Your task to perform on an android device: When is my next meeting? Image 0: 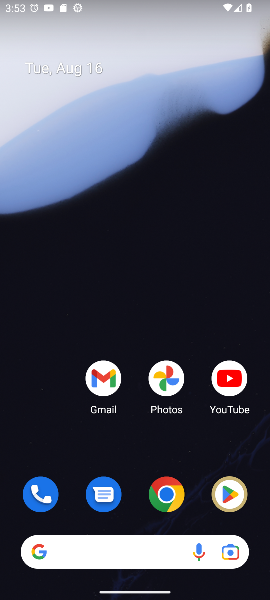
Step 0: drag from (160, 535) to (99, 56)
Your task to perform on an android device: When is my next meeting? Image 1: 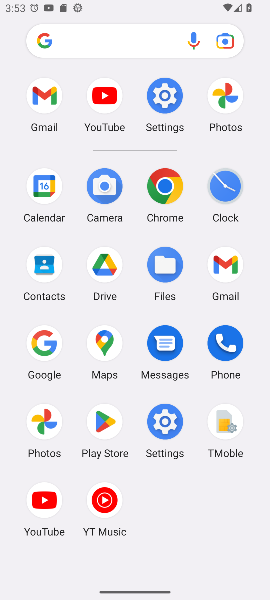
Step 1: click (57, 192)
Your task to perform on an android device: When is my next meeting? Image 2: 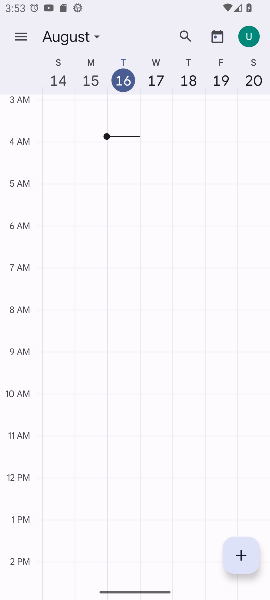
Step 2: drag from (250, 80) to (24, 85)
Your task to perform on an android device: When is my next meeting? Image 3: 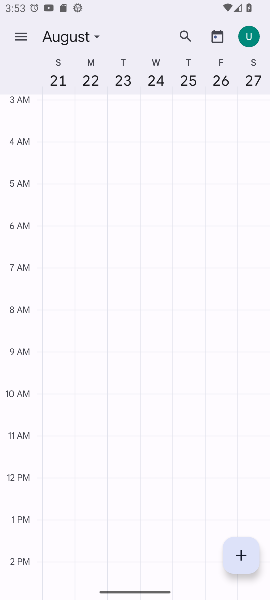
Step 3: drag from (222, 88) to (10, 88)
Your task to perform on an android device: When is my next meeting? Image 4: 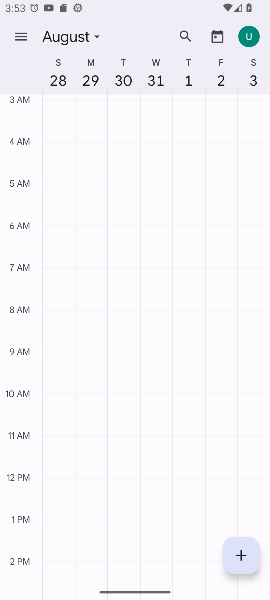
Step 4: drag from (246, 81) to (0, 55)
Your task to perform on an android device: When is my next meeting? Image 5: 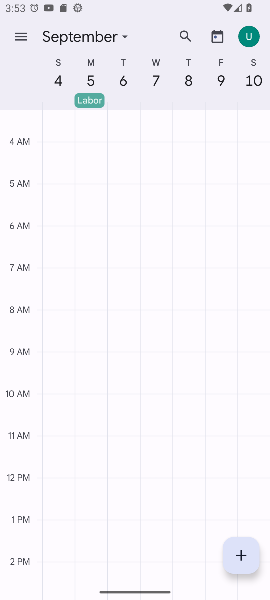
Step 5: drag from (240, 93) to (6, 103)
Your task to perform on an android device: When is my next meeting? Image 6: 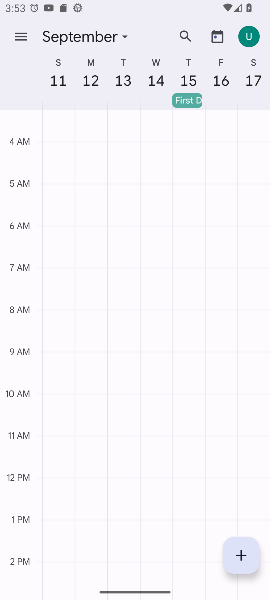
Step 6: click (229, 82)
Your task to perform on an android device: When is my next meeting? Image 7: 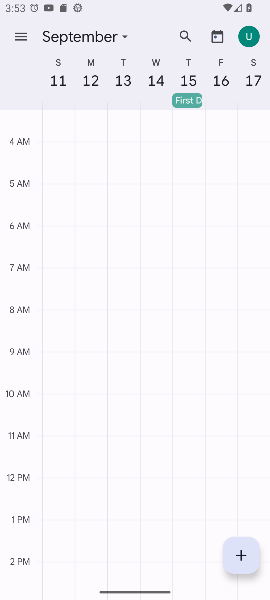
Step 7: click (190, 80)
Your task to perform on an android device: When is my next meeting? Image 8: 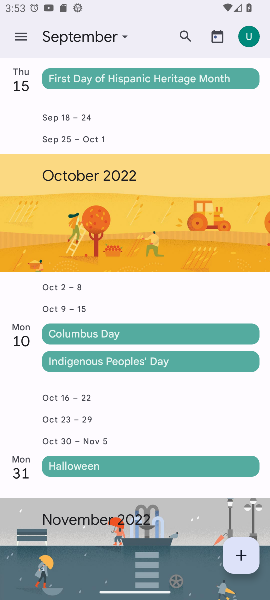
Step 8: task complete